Your task to perform on an android device: turn off data saver in the chrome app Image 0: 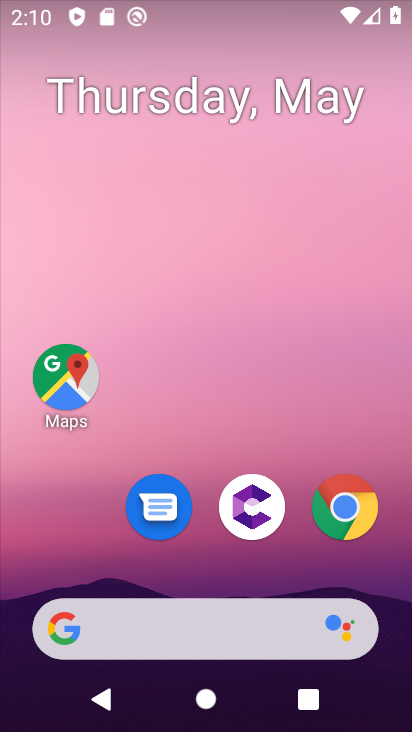
Step 0: press home button
Your task to perform on an android device: turn off data saver in the chrome app Image 1: 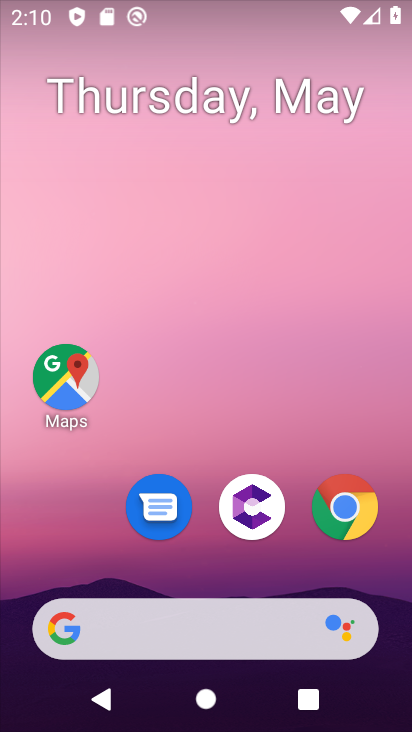
Step 1: click (342, 508)
Your task to perform on an android device: turn off data saver in the chrome app Image 2: 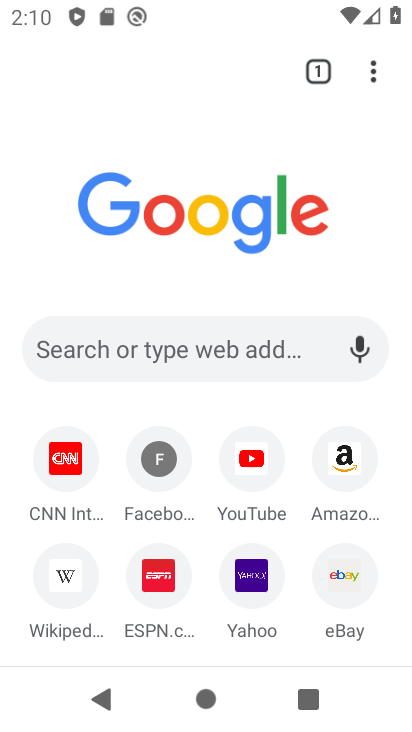
Step 2: drag from (378, 76) to (189, 500)
Your task to perform on an android device: turn off data saver in the chrome app Image 3: 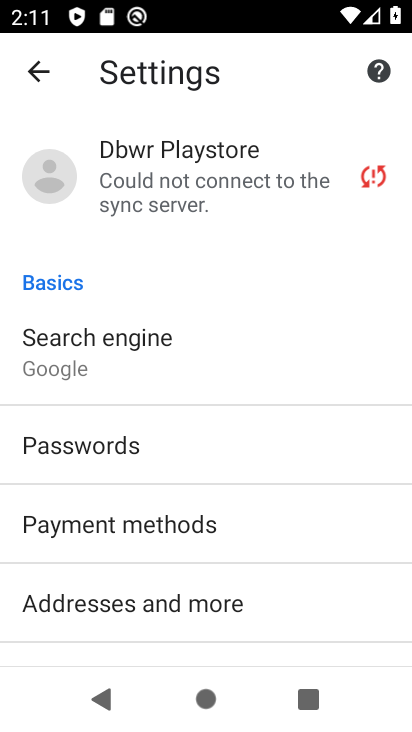
Step 3: drag from (222, 537) to (200, 219)
Your task to perform on an android device: turn off data saver in the chrome app Image 4: 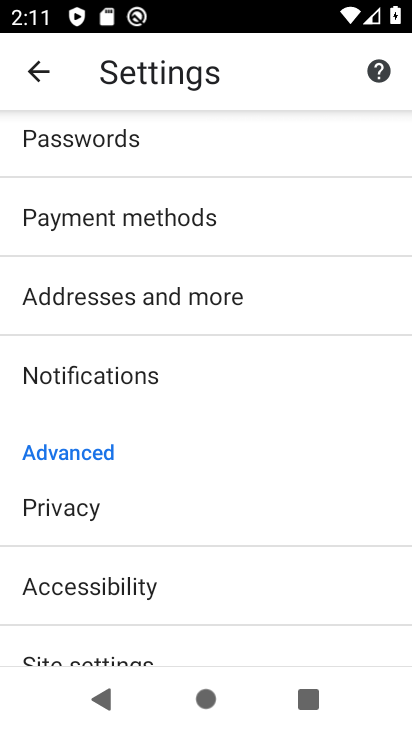
Step 4: drag from (245, 492) to (207, 255)
Your task to perform on an android device: turn off data saver in the chrome app Image 5: 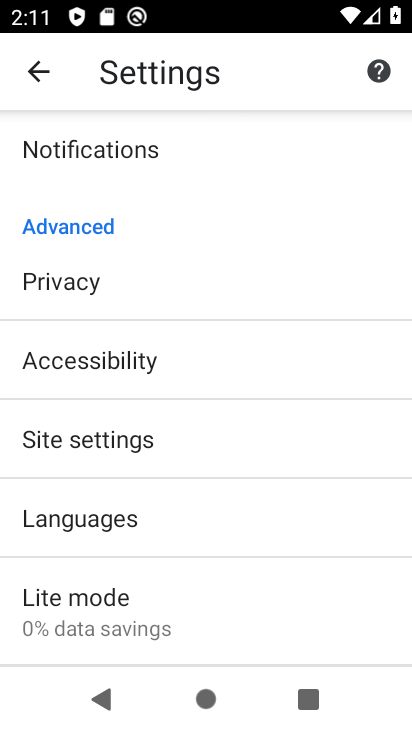
Step 5: click (85, 608)
Your task to perform on an android device: turn off data saver in the chrome app Image 6: 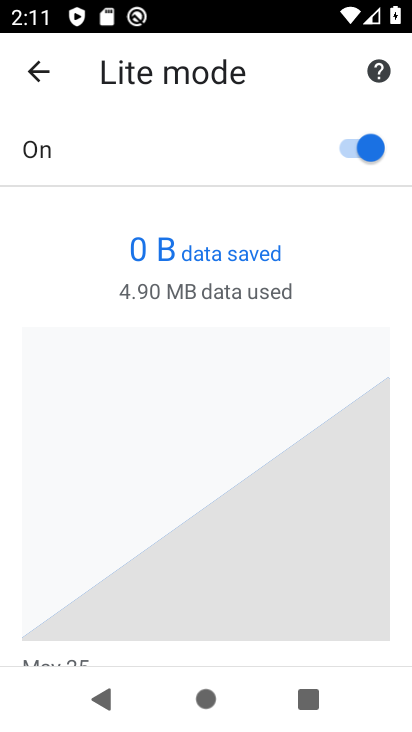
Step 6: click (381, 146)
Your task to perform on an android device: turn off data saver in the chrome app Image 7: 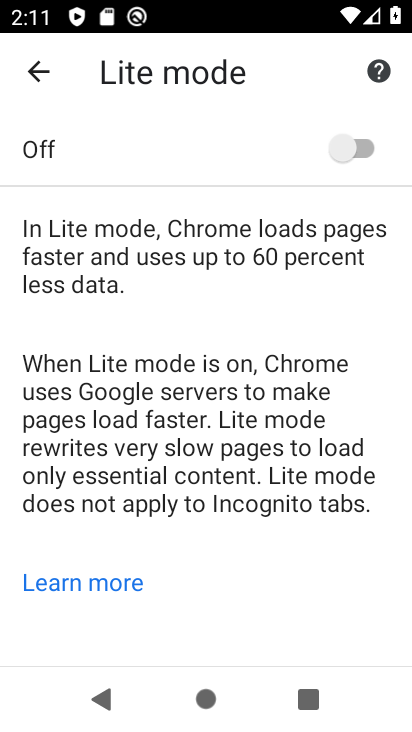
Step 7: task complete